Your task to perform on an android device: change the clock display to analog Image 0: 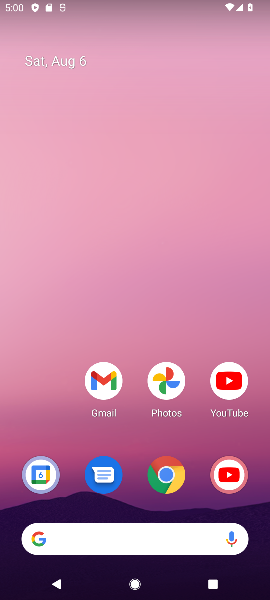
Step 0: drag from (196, 341) to (148, 59)
Your task to perform on an android device: change the clock display to analog Image 1: 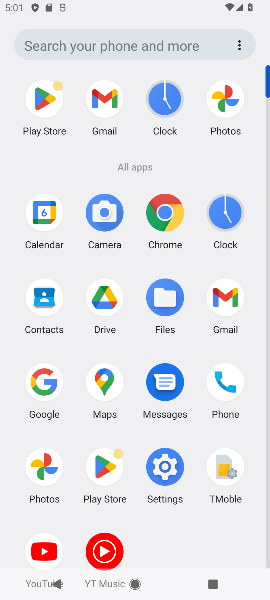
Step 1: click (229, 226)
Your task to perform on an android device: change the clock display to analog Image 2: 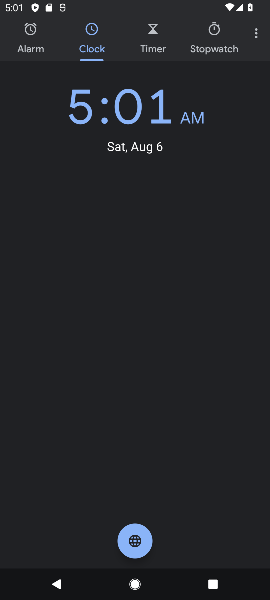
Step 2: click (256, 40)
Your task to perform on an android device: change the clock display to analog Image 3: 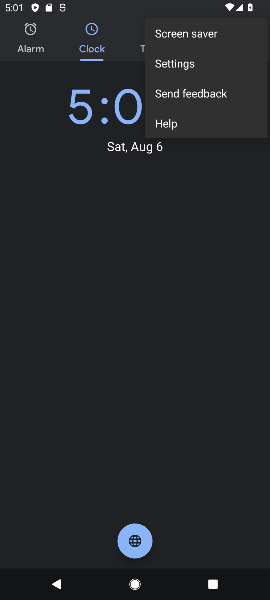
Step 3: click (204, 69)
Your task to perform on an android device: change the clock display to analog Image 4: 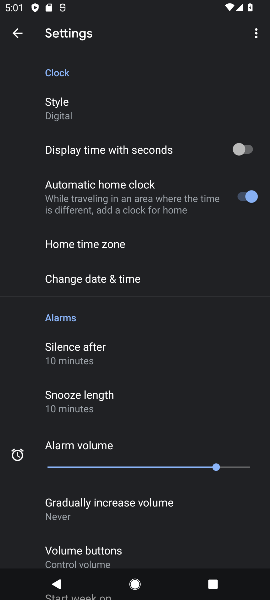
Step 4: click (132, 109)
Your task to perform on an android device: change the clock display to analog Image 5: 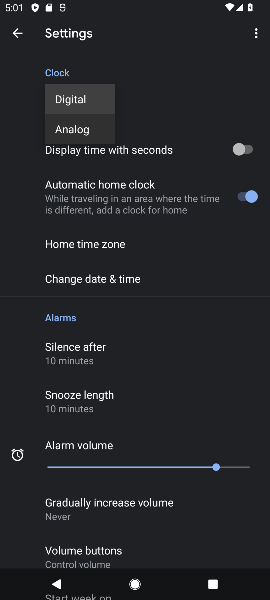
Step 5: click (81, 136)
Your task to perform on an android device: change the clock display to analog Image 6: 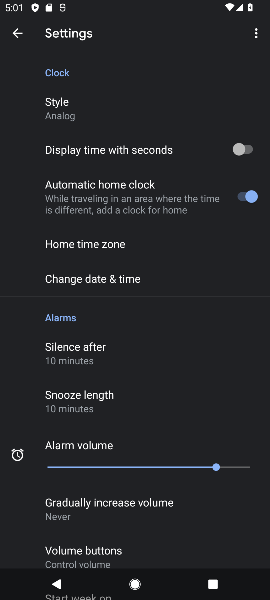
Step 6: task complete